Your task to perform on an android device: Add apple airpods pro to the cart on ebay Image 0: 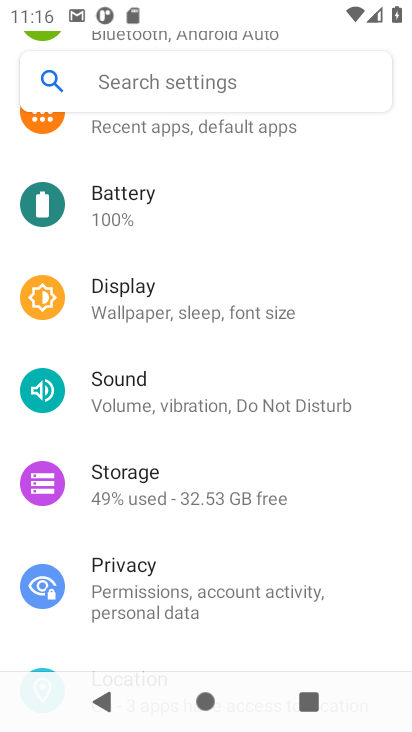
Step 0: press home button
Your task to perform on an android device: Add apple airpods pro to the cart on ebay Image 1: 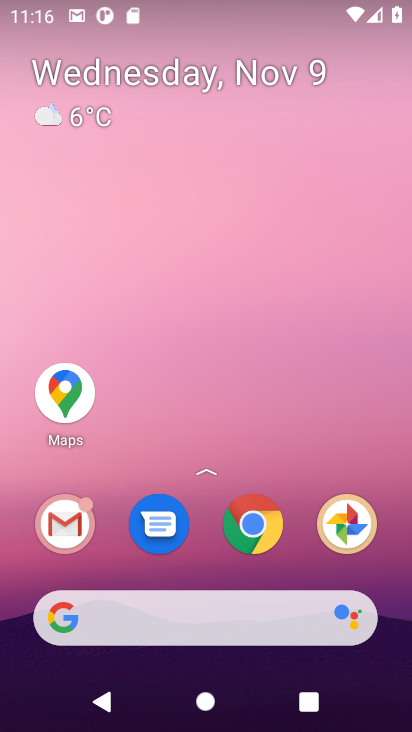
Step 1: click (165, 634)
Your task to perform on an android device: Add apple airpods pro to the cart on ebay Image 2: 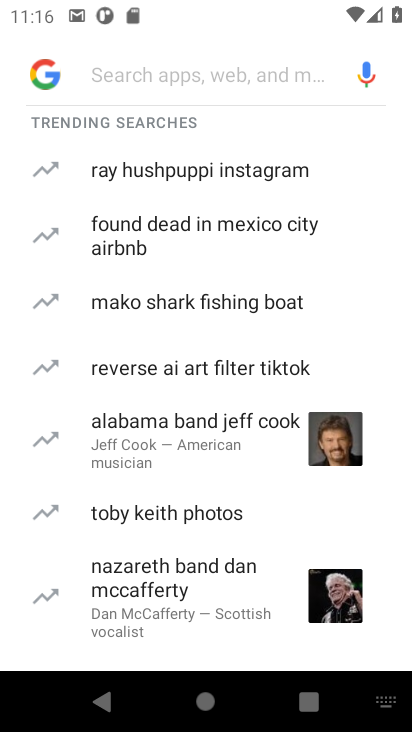
Step 2: type "apple airpods pro on ebay"
Your task to perform on an android device: Add apple airpods pro to the cart on ebay Image 3: 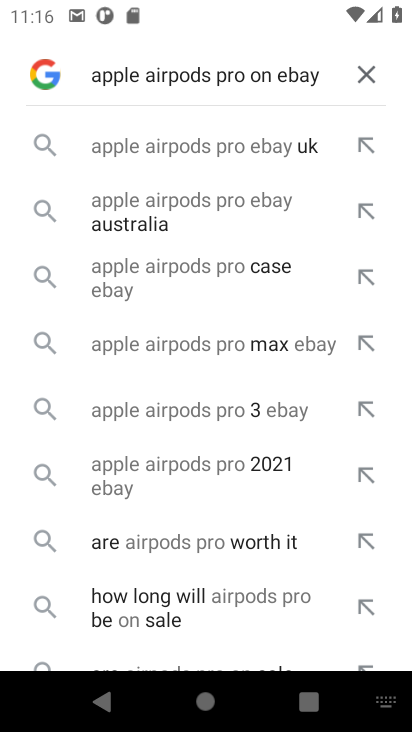
Step 3: click (263, 148)
Your task to perform on an android device: Add apple airpods pro to the cart on ebay Image 4: 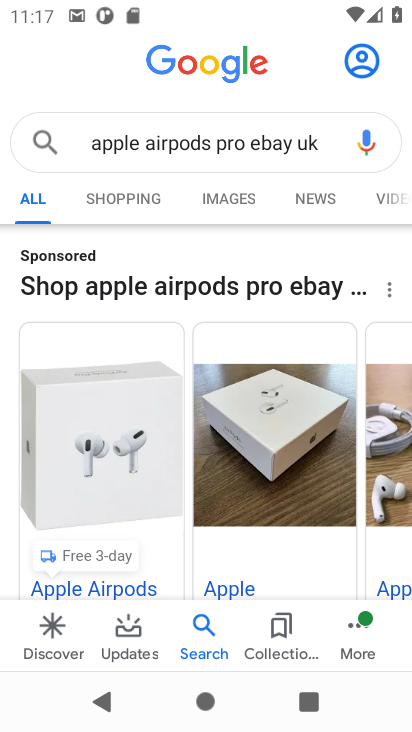
Step 4: drag from (98, 529) to (174, 259)
Your task to perform on an android device: Add apple airpods pro to the cart on ebay Image 5: 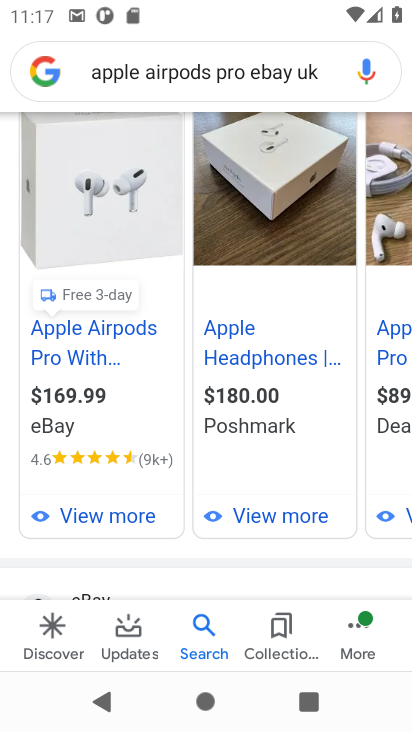
Step 5: click (118, 330)
Your task to perform on an android device: Add apple airpods pro to the cart on ebay Image 6: 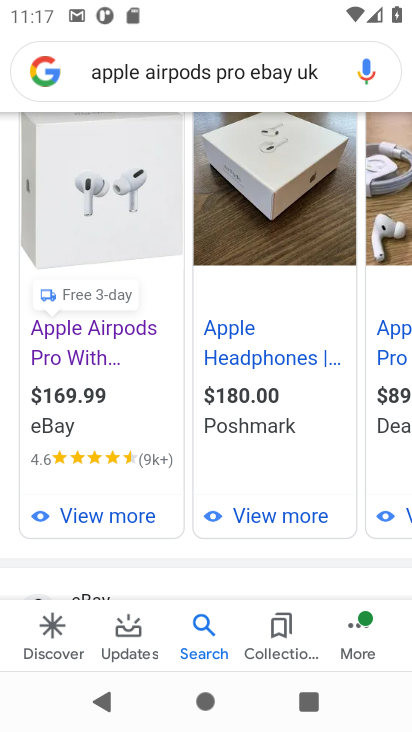
Step 6: click (118, 330)
Your task to perform on an android device: Add apple airpods pro to the cart on ebay Image 7: 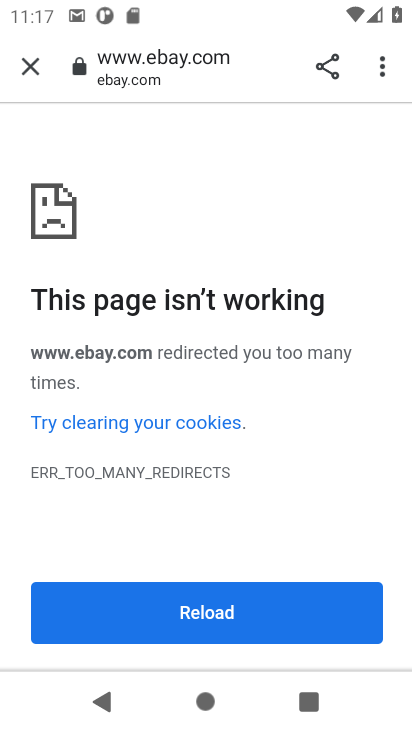
Step 7: click (323, 611)
Your task to perform on an android device: Add apple airpods pro to the cart on ebay Image 8: 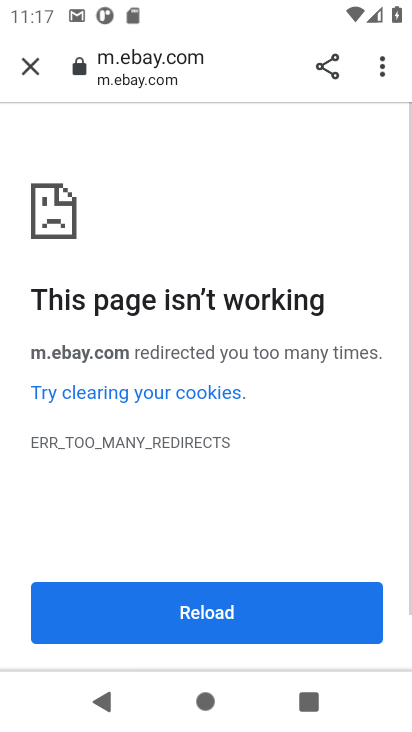
Step 8: task complete